Your task to perform on an android device: change the clock display to show seconds Image 0: 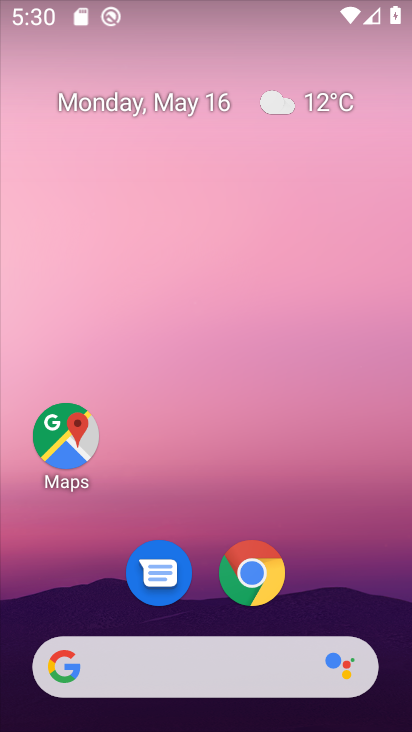
Step 0: drag from (227, 557) to (310, 59)
Your task to perform on an android device: change the clock display to show seconds Image 1: 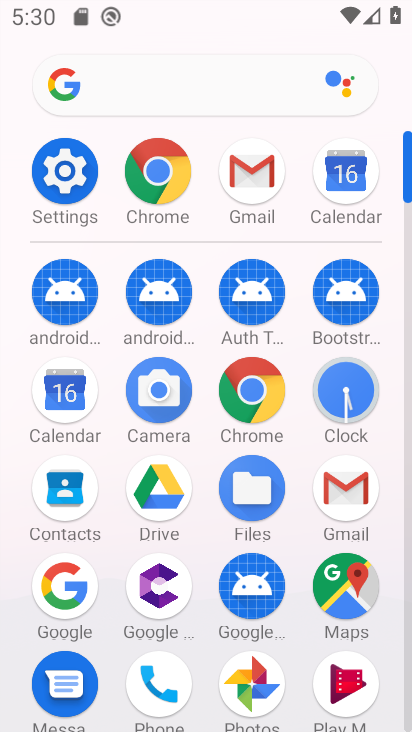
Step 1: click (345, 376)
Your task to perform on an android device: change the clock display to show seconds Image 2: 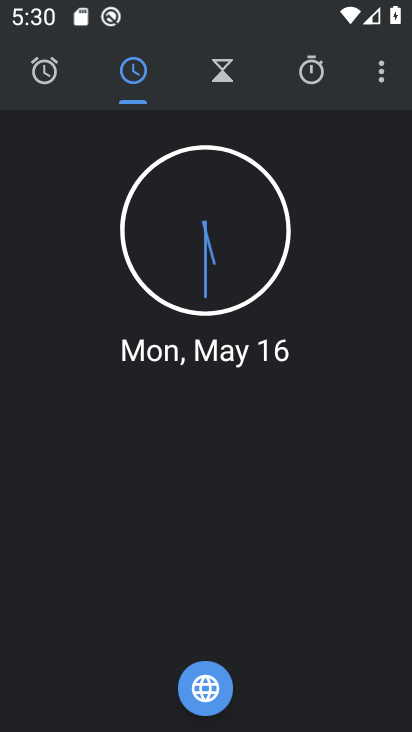
Step 2: click (377, 78)
Your task to perform on an android device: change the clock display to show seconds Image 3: 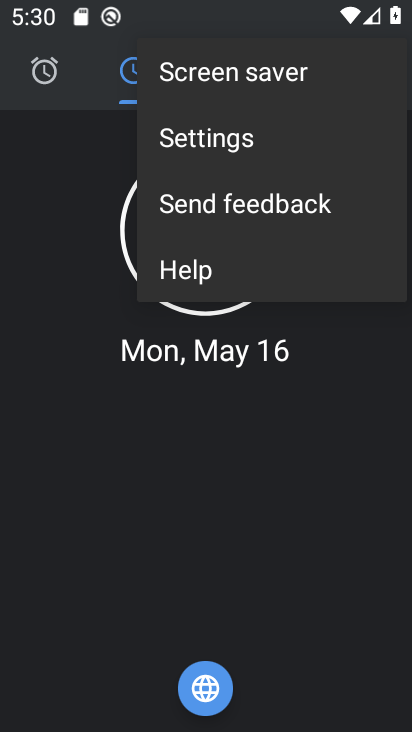
Step 3: click (278, 135)
Your task to perform on an android device: change the clock display to show seconds Image 4: 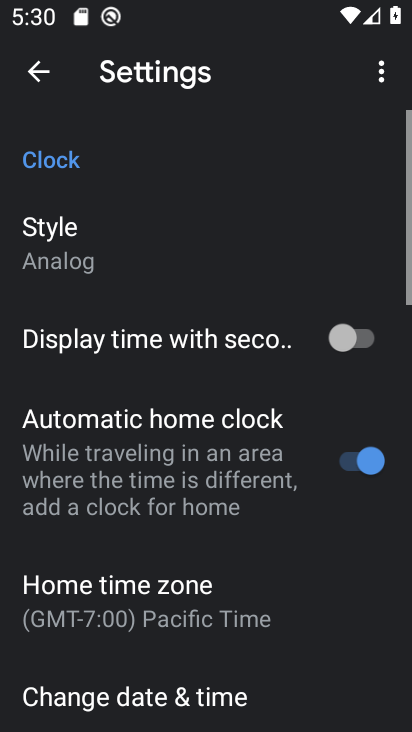
Step 4: click (70, 241)
Your task to perform on an android device: change the clock display to show seconds Image 5: 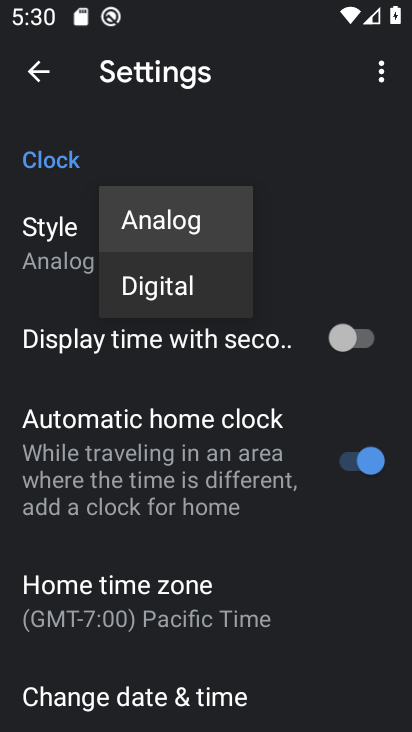
Step 5: click (139, 281)
Your task to perform on an android device: change the clock display to show seconds Image 6: 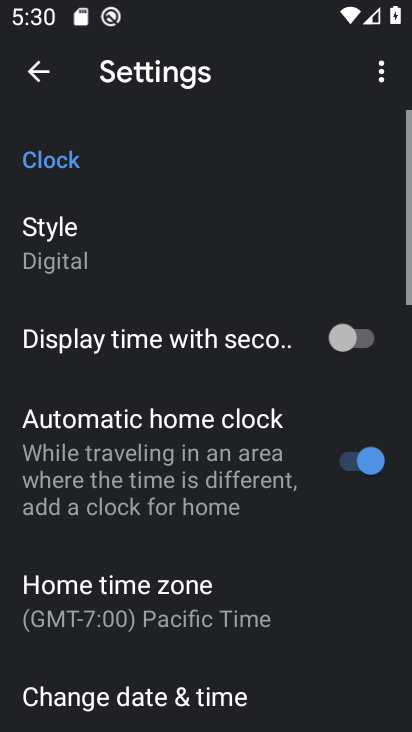
Step 6: click (356, 335)
Your task to perform on an android device: change the clock display to show seconds Image 7: 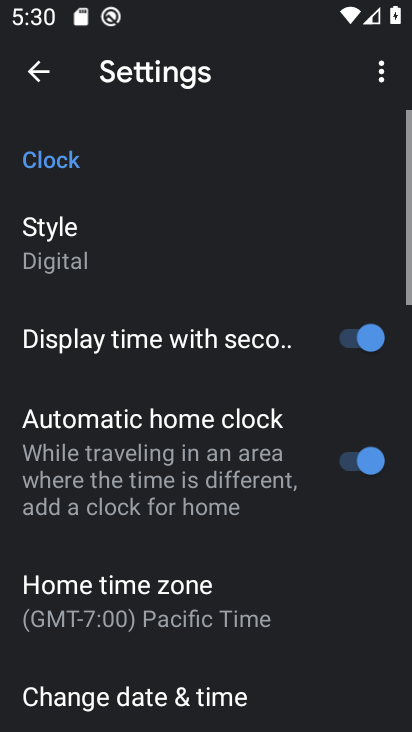
Step 7: task complete